Your task to perform on an android device: find snoozed emails in the gmail app Image 0: 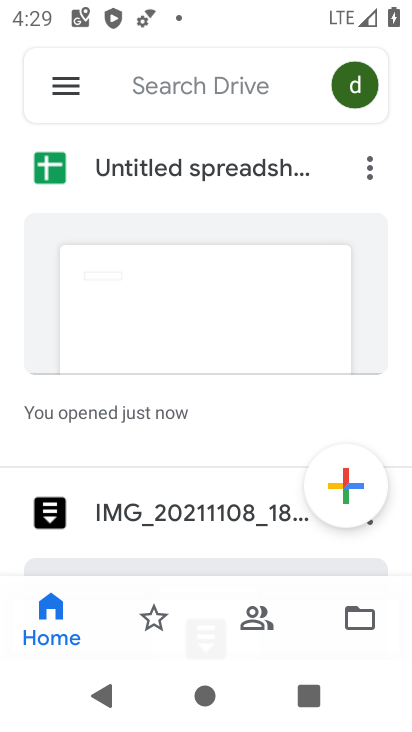
Step 0: press home button
Your task to perform on an android device: find snoozed emails in the gmail app Image 1: 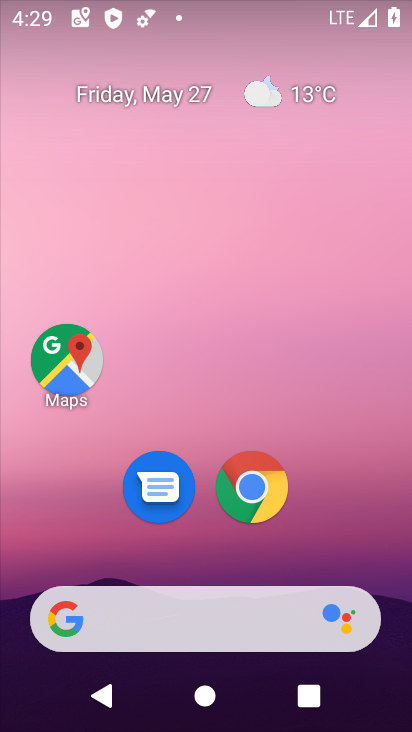
Step 1: drag from (337, 487) to (205, 131)
Your task to perform on an android device: find snoozed emails in the gmail app Image 2: 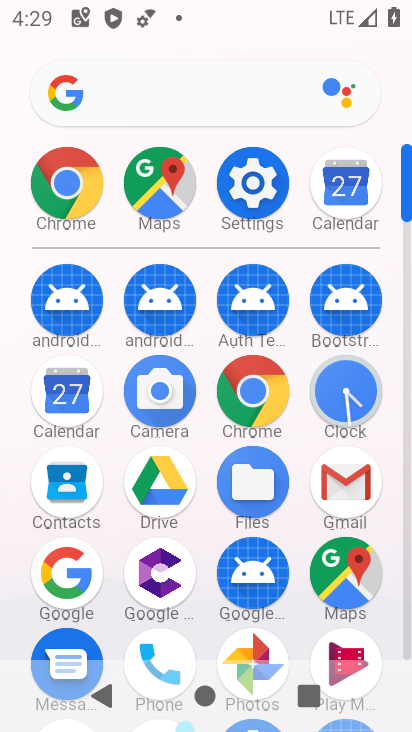
Step 2: click (359, 479)
Your task to perform on an android device: find snoozed emails in the gmail app Image 3: 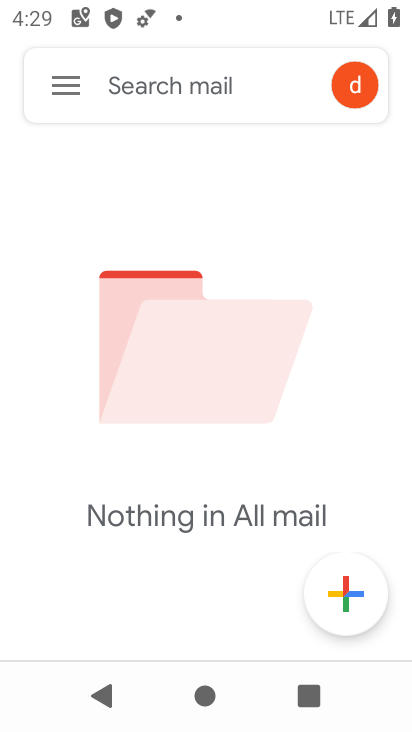
Step 3: click (67, 88)
Your task to perform on an android device: find snoozed emails in the gmail app Image 4: 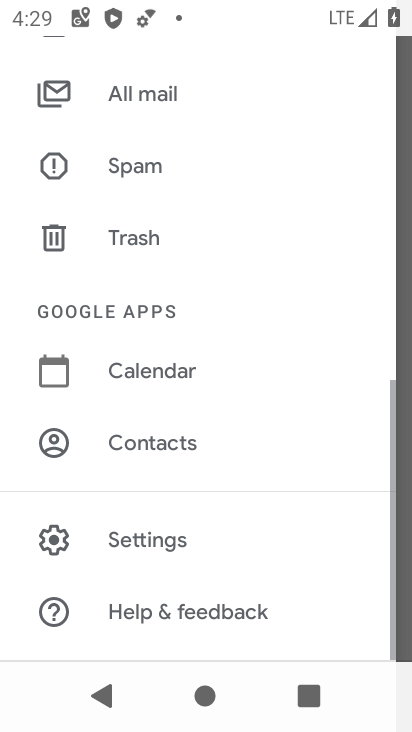
Step 4: drag from (187, 172) to (190, 479)
Your task to perform on an android device: find snoozed emails in the gmail app Image 5: 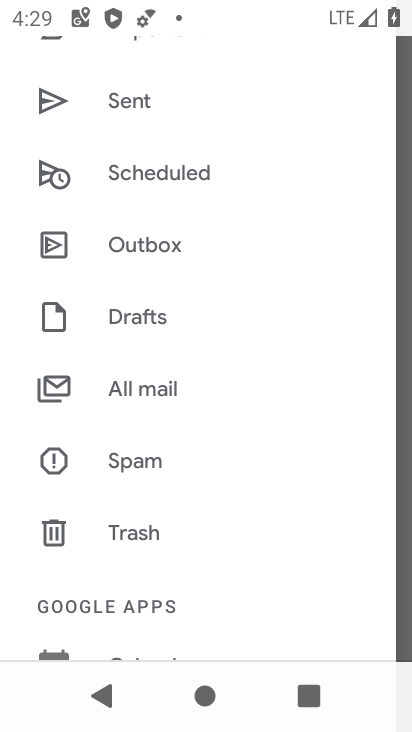
Step 5: drag from (159, 194) to (139, 453)
Your task to perform on an android device: find snoozed emails in the gmail app Image 6: 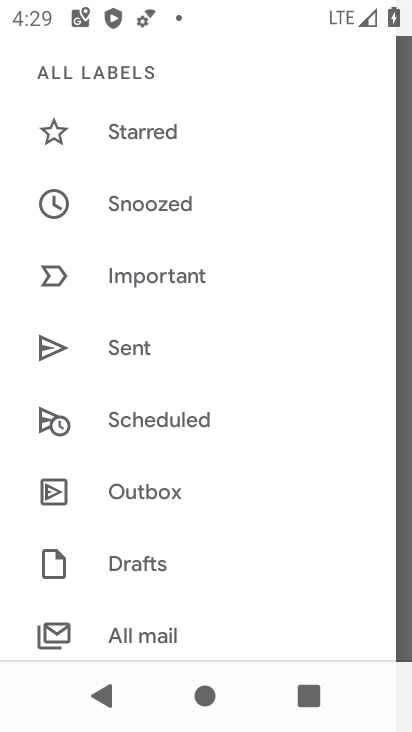
Step 6: click (151, 207)
Your task to perform on an android device: find snoozed emails in the gmail app Image 7: 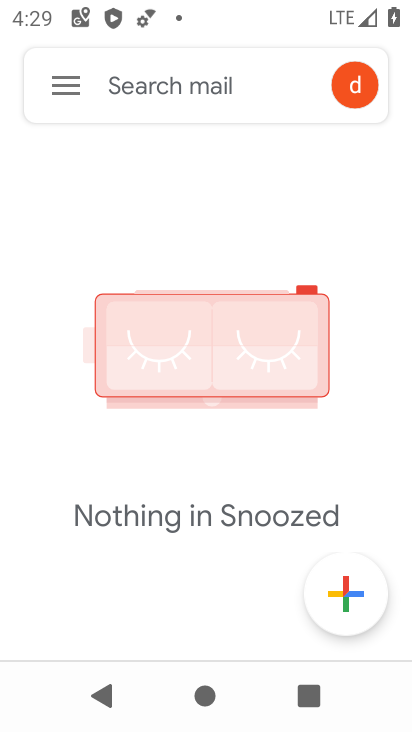
Step 7: task complete